Your task to perform on an android device: set an alarm Image 0: 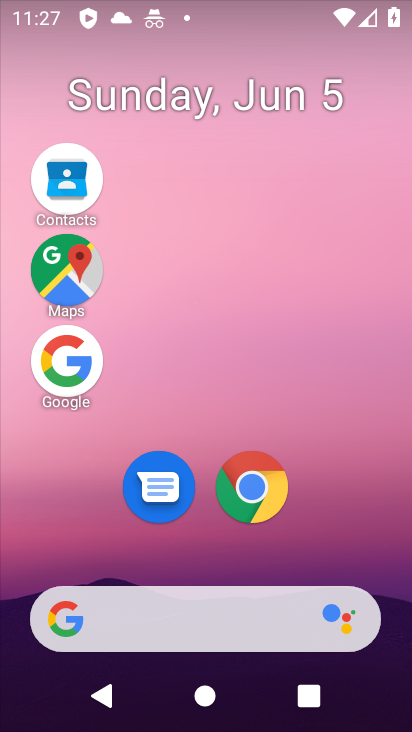
Step 0: drag from (262, 550) to (177, 49)
Your task to perform on an android device: set an alarm Image 1: 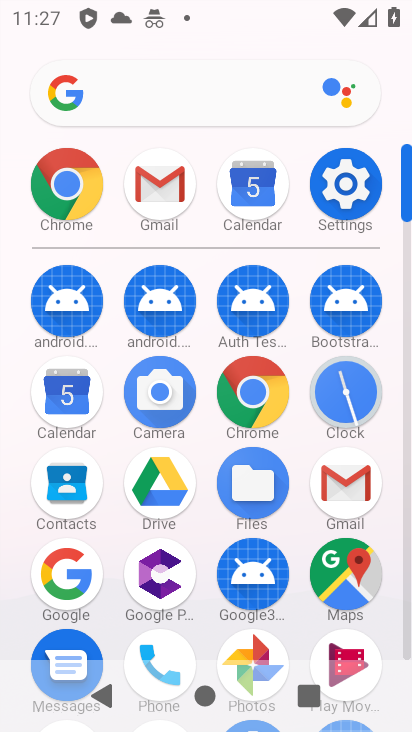
Step 1: click (366, 395)
Your task to perform on an android device: set an alarm Image 2: 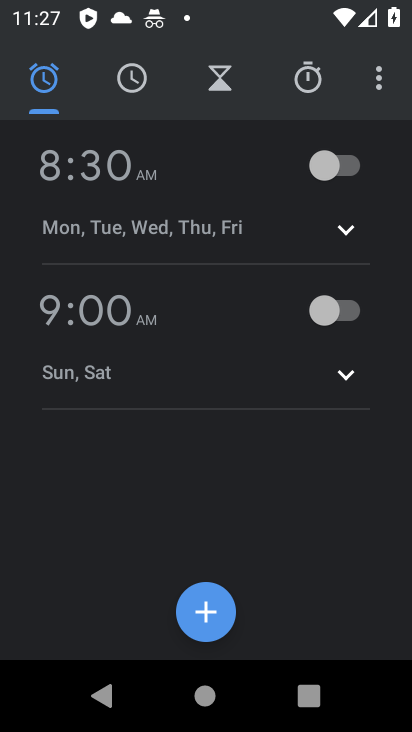
Step 2: click (225, 635)
Your task to perform on an android device: set an alarm Image 3: 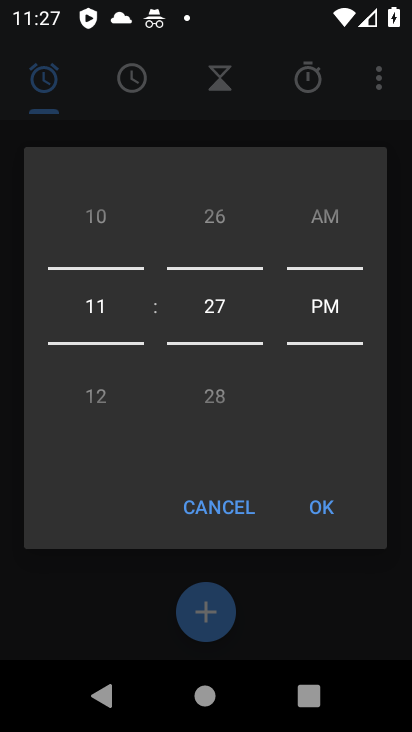
Step 3: click (329, 510)
Your task to perform on an android device: set an alarm Image 4: 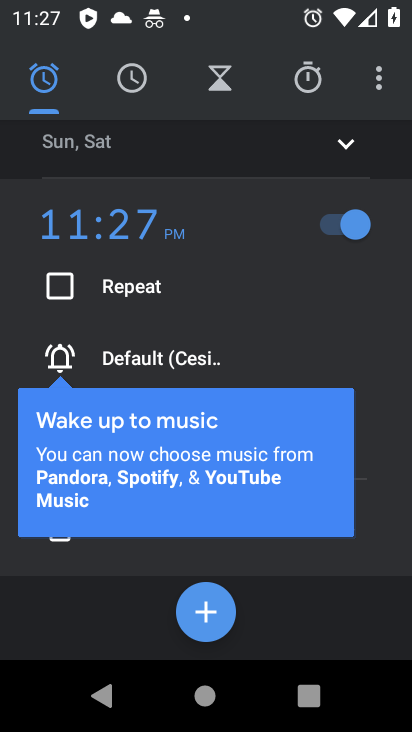
Step 4: task complete